Your task to perform on an android device: Open Google Image 0: 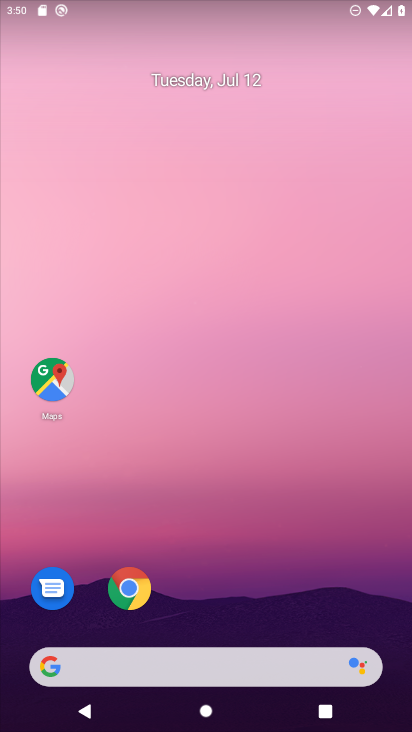
Step 0: click (137, 591)
Your task to perform on an android device: Open Google Image 1: 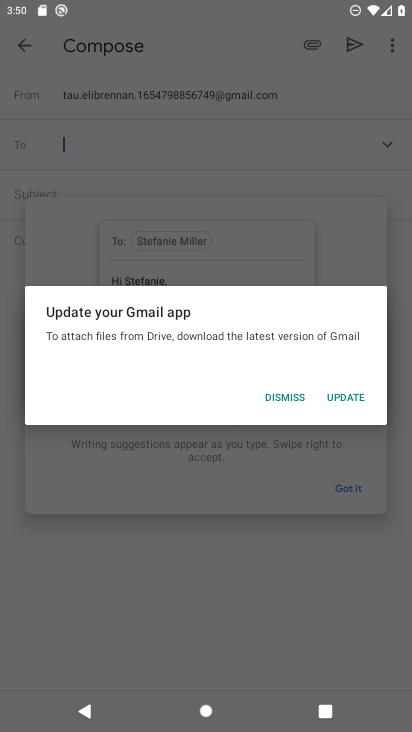
Step 1: click (286, 396)
Your task to perform on an android device: Open Google Image 2: 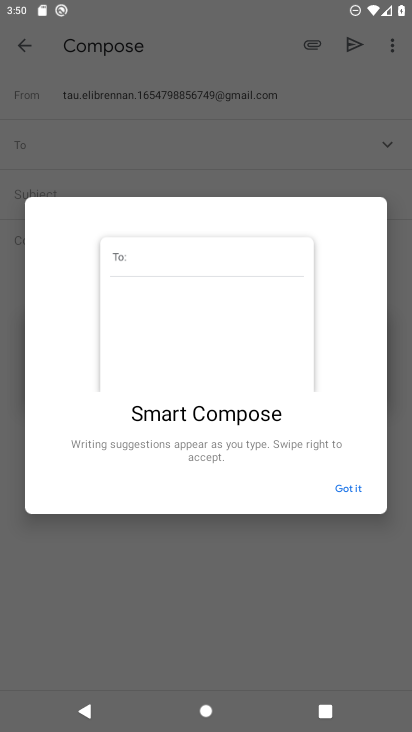
Step 2: press home button
Your task to perform on an android device: Open Google Image 3: 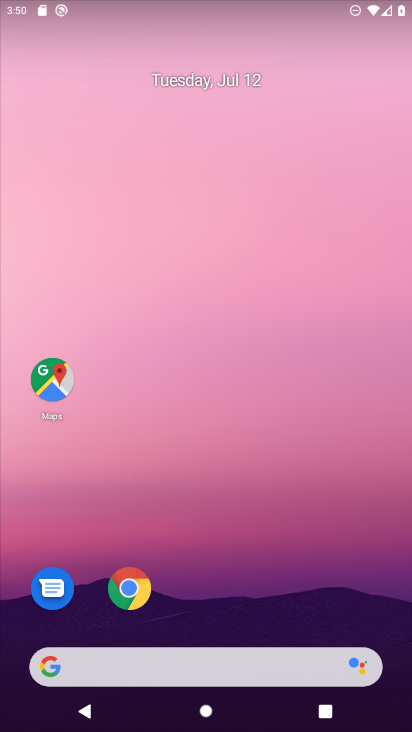
Step 3: click (136, 589)
Your task to perform on an android device: Open Google Image 4: 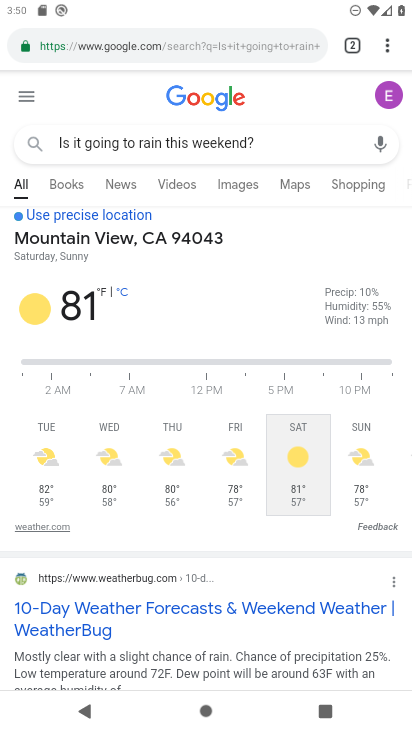
Step 4: task complete